Your task to perform on an android device: turn vacation reply on in the gmail app Image 0: 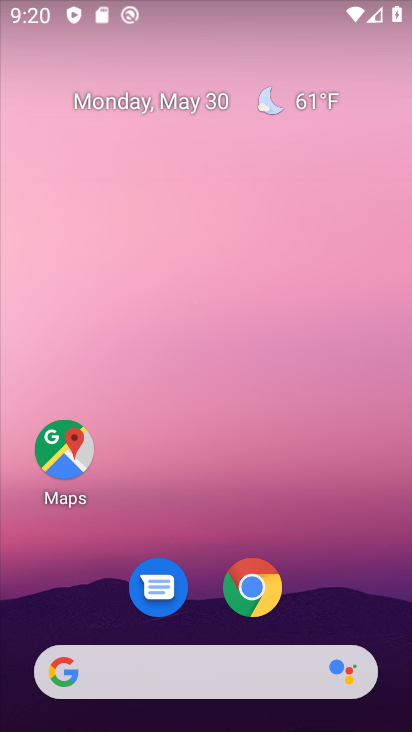
Step 0: drag from (220, 642) to (222, 12)
Your task to perform on an android device: turn vacation reply on in the gmail app Image 1: 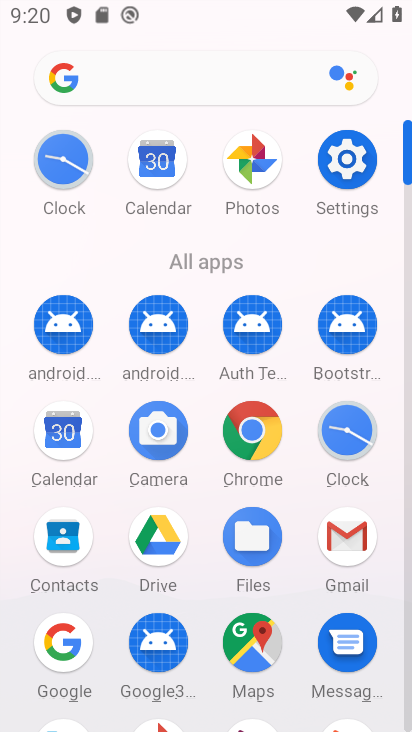
Step 1: click (339, 532)
Your task to perform on an android device: turn vacation reply on in the gmail app Image 2: 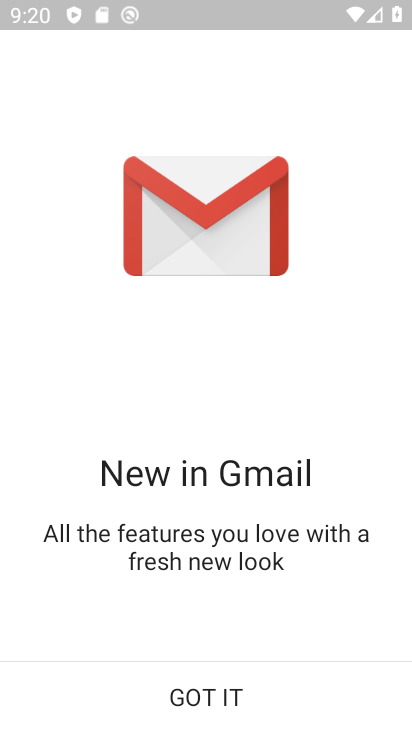
Step 2: click (199, 680)
Your task to perform on an android device: turn vacation reply on in the gmail app Image 3: 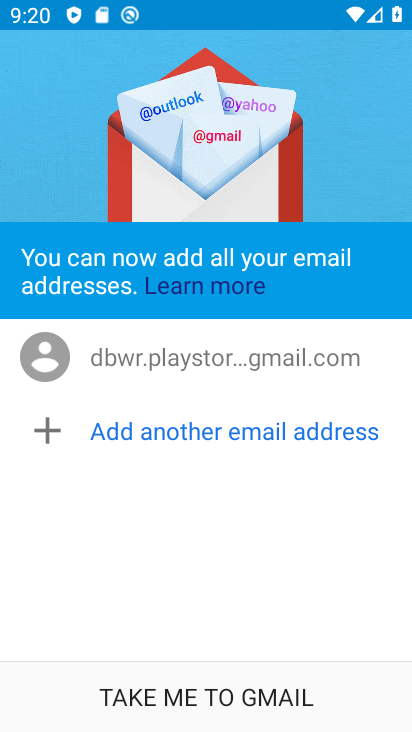
Step 3: click (171, 711)
Your task to perform on an android device: turn vacation reply on in the gmail app Image 4: 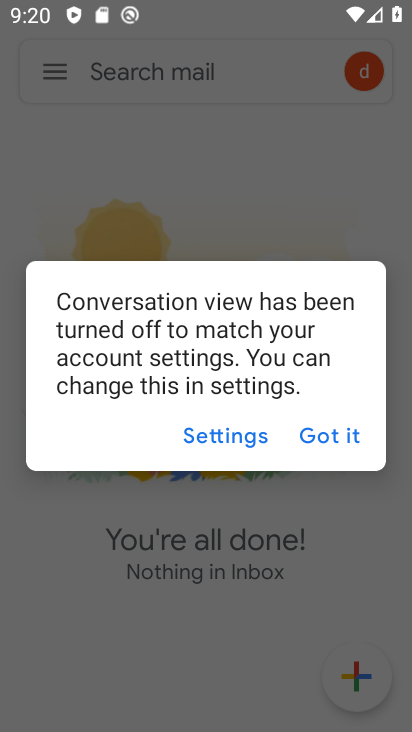
Step 4: click (320, 435)
Your task to perform on an android device: turn vacation reply on in the gmail app Image 5: 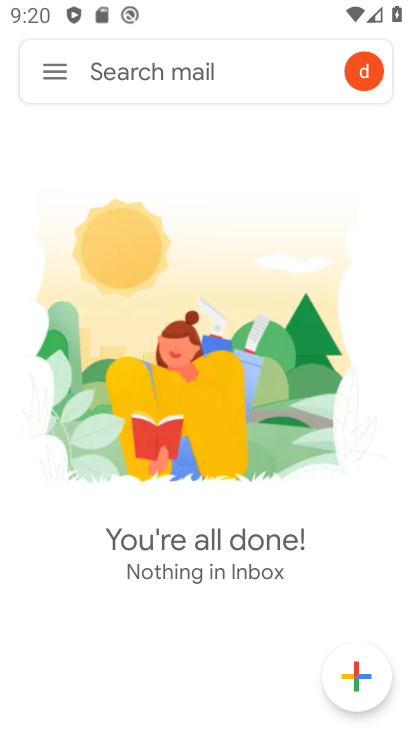
Step 5: click (25, 73)
Your task to perform on an android device: turn vacation reply on in the gmail app Image 6: 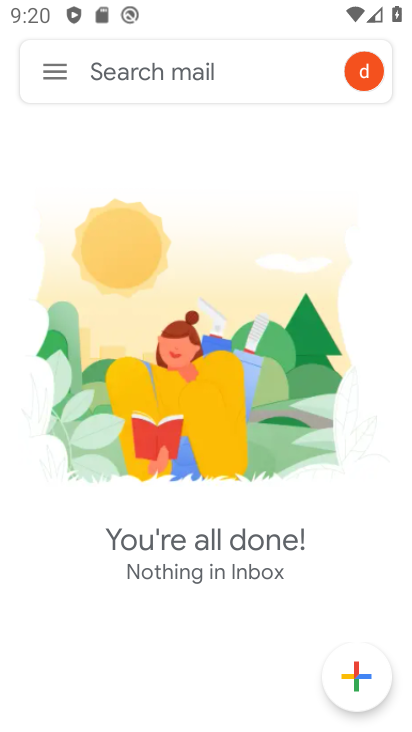
Step 6: drag from (42, 68) to (39, 325)
Your task to perform on an android device: turn vacation reply on in the gmail app Image 7: 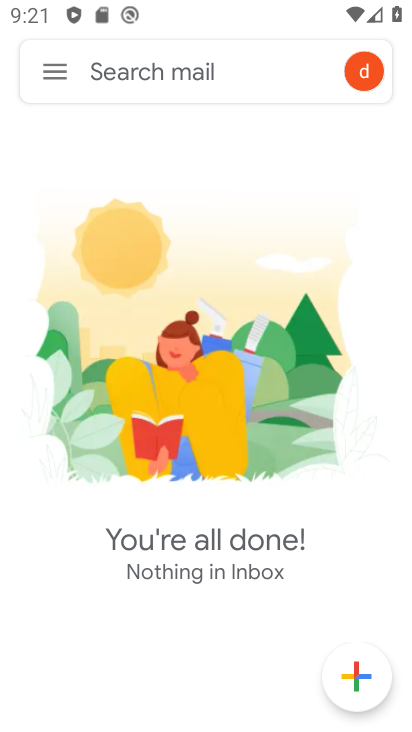
Step 7: click (43, 61)
Your task to perform on an android device: turn vacation reply on in the gmail app Image 8: 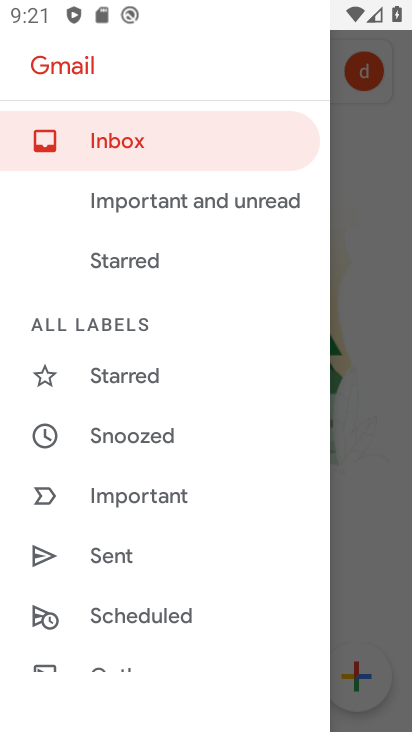
Step 8: drag from (173, 636) to (103, 10)
Your task to perform on an android device: turn vacation reply on in the gmail app Image 9: 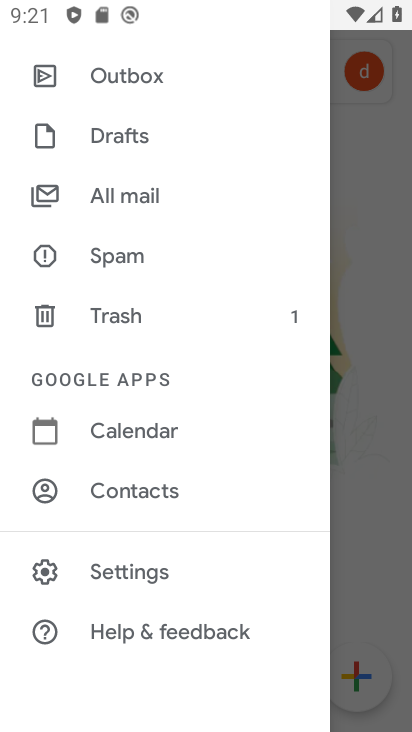
Step 9: click (148, 573)
Your task to perform on an android device: turn vacation reply on in the gmail app Image 10: 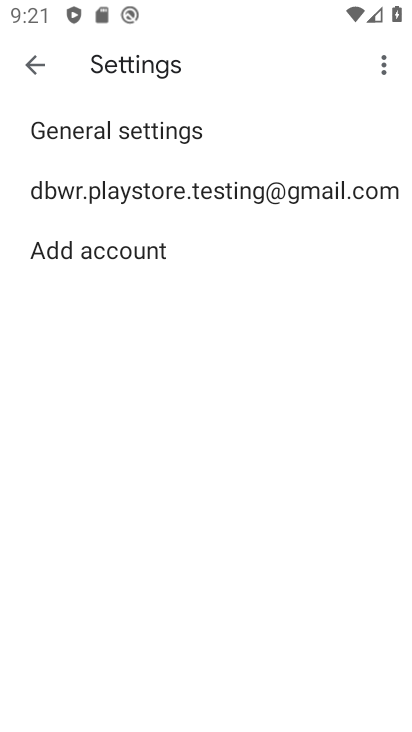
Step 10: click (62, 198)
Your task to perform on an android device: turn vacation reply on in the gmail app Image 11: 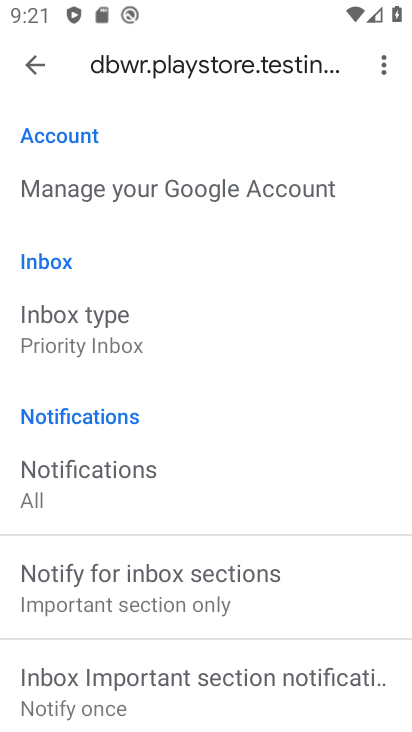
Step 11: drag from (184, 575) to (182, 0)
Your task to perform on an android device: turn vacation reply on in the gmail app Image 12: 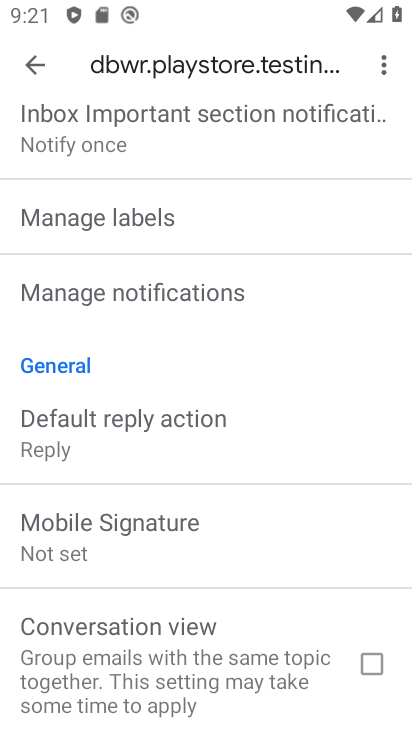
Step 12: drag from (222, 588) to (222, 132)
Your task to perform on an android device: turn vacation reply on in the gmail app Image 13: 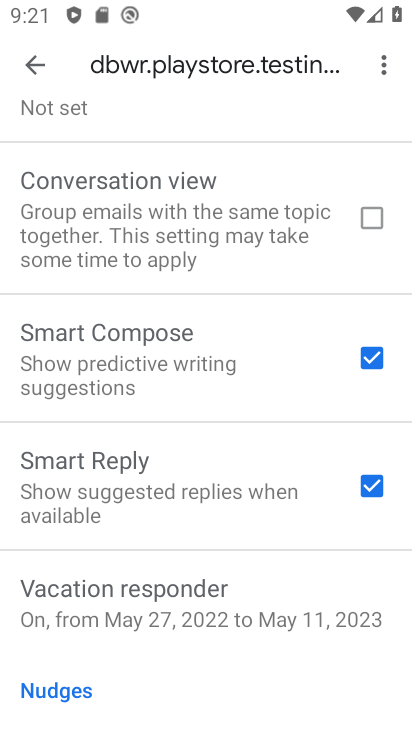
Step 13: click (248, 587)
Your task to perform on an android device: turn vacation reply on in the gmail app Image 14: 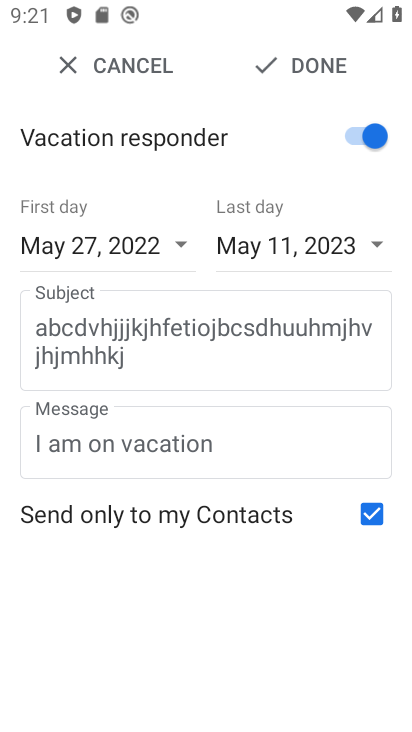
Step 14: task complete